Your task to perform on an android device: toggle show notifications on the lock screen Image 0: 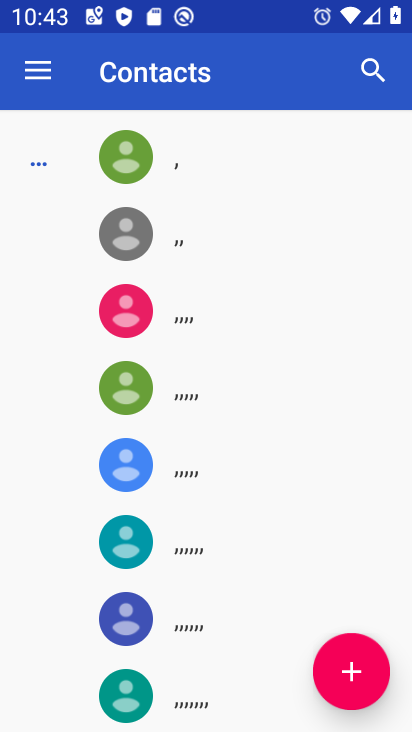
Step 0: press home button
Your task to perform on an android device: toggle show notifications on the lock screen Image 1: 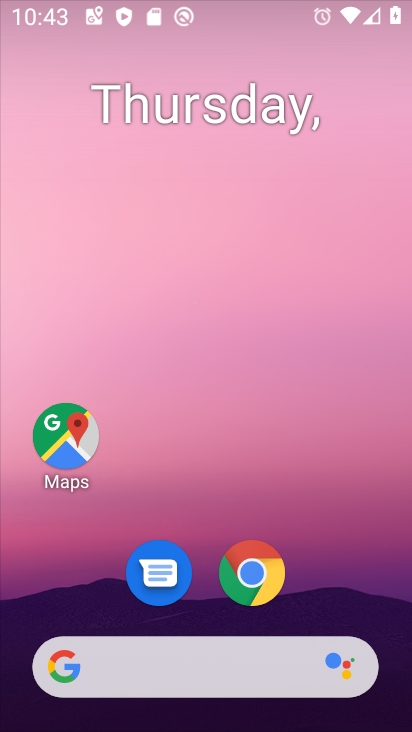
Step 1: drag from (357, 559) to (346, 157)
Your task to perform on an android device: toggle show notifications on the lock screen Image 2: 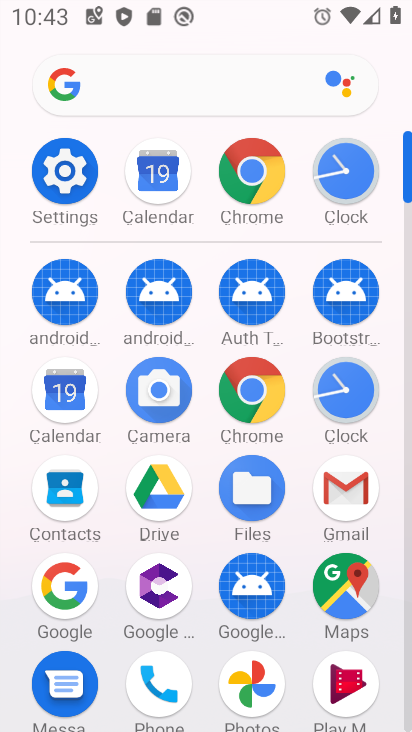
Step 2: click (77, 159)
Your task to perform on an android device: toggle show notifications on the lock screen Image 3: 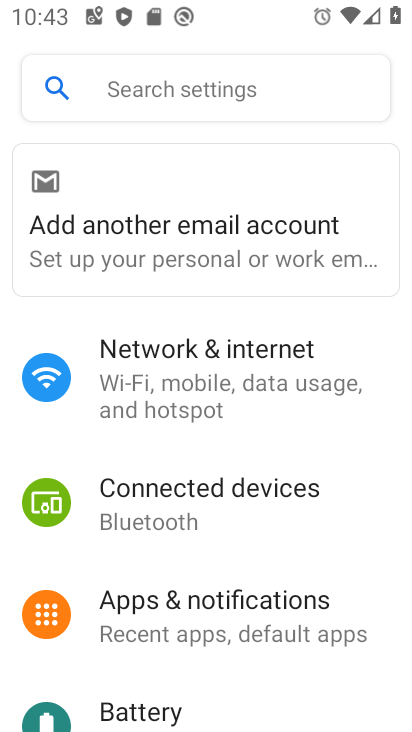
Step 3: click (287, 629)
Your task to perform on an android device: toggle show notifications on the lock screen Image 4: 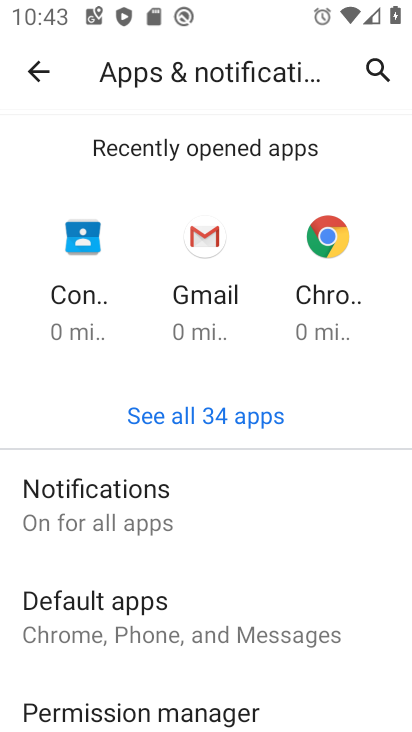
Step 4: drag from (287, 630) to (294, 342)
Your task to perform on an android device: toggle show notifications on the lock screen Image 5: 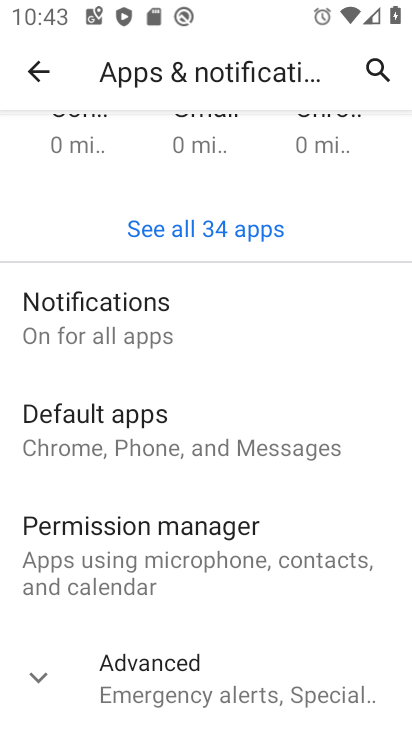
Step 5: click (132, 312)
Your task to perform on an android device: toggle show notifications on the lock screen Image 6: 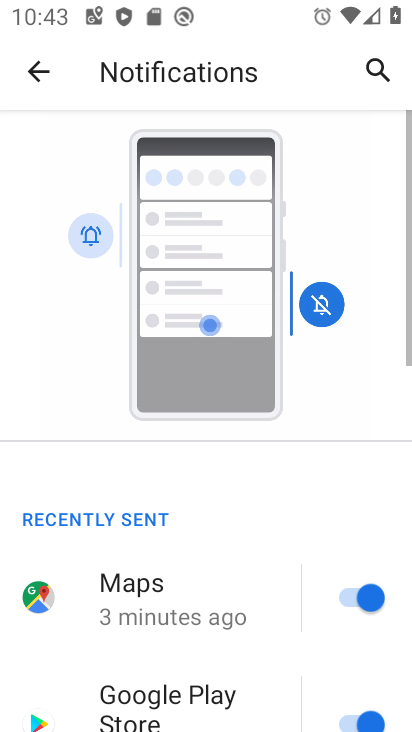
Step 6: drag from (200, 586) to (224, 160)
Your task to perform on an android device: toggle show notifications on the lock screen Image 7: 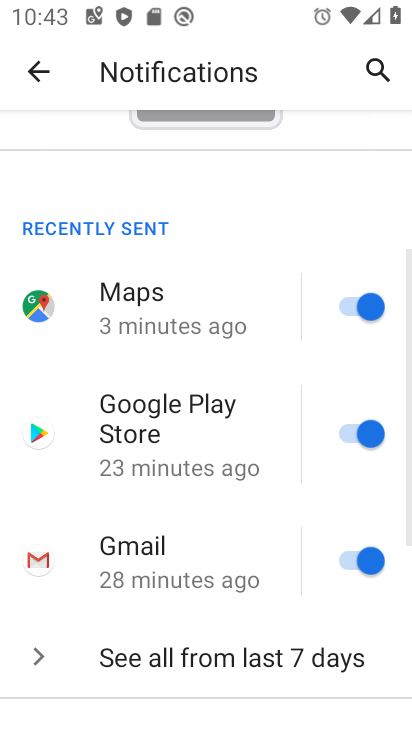
Step 7: drag from (180, 642) to (277, 213)
Your task to perform on an android device: toggle show notifications on the lock screen Image 8: 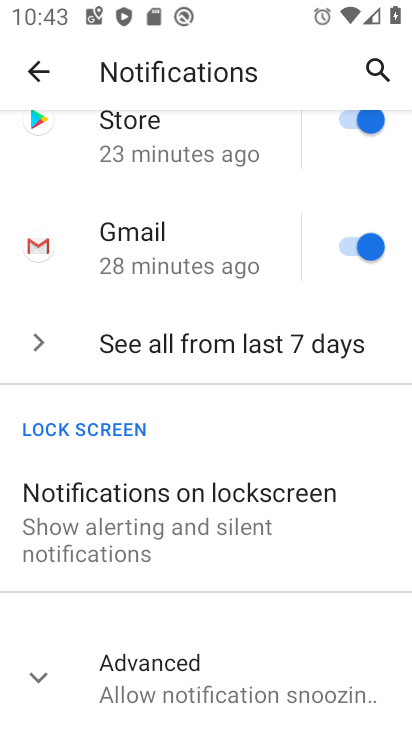
Step 8: click (190, 670)
Your task to perform on an android device: toggle show notifications on the lock screen Image 9: 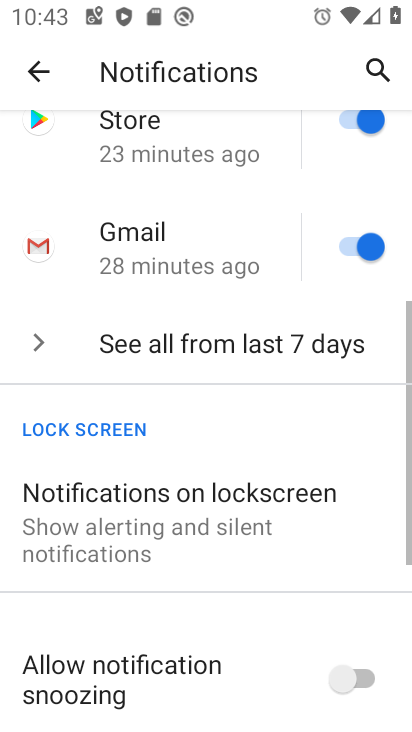
Step 9: drag from (209, 658) to (291, 222)
Your task to perform on an android device: toggle show notifications on the lock screen Image 10: 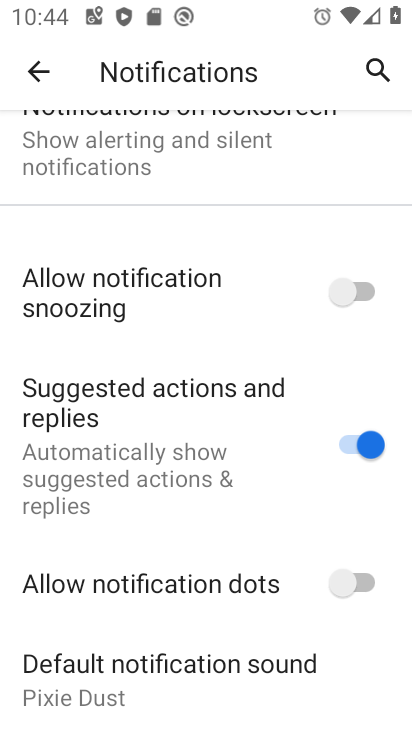
Step 10: drag from (225, 609) to (277, 326)
Your task to perform on an android device: toggle show notifications on the lock screen Image 11: 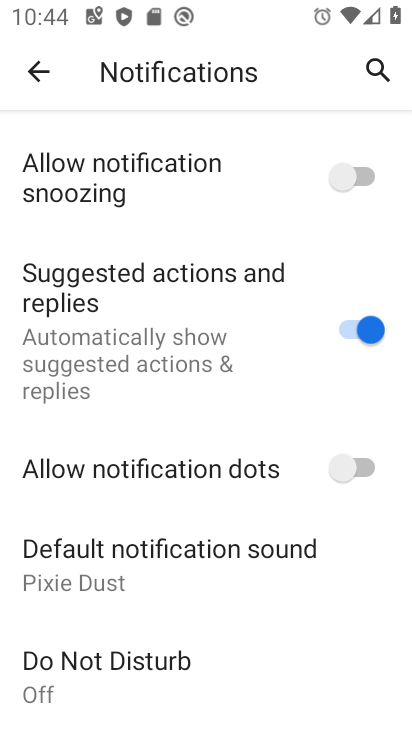
Step 11: drag from (274, 250) to (198, 700)
Your task to perform on an android device: toggle show notifications on the lock screen Image 12: 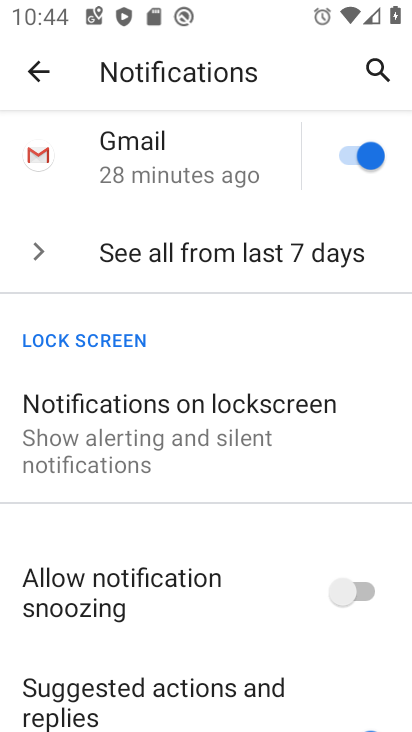
Step 12: click (187, 430)
Your task to perform on an android device: toggle show notifications on the lock screen Image 13: 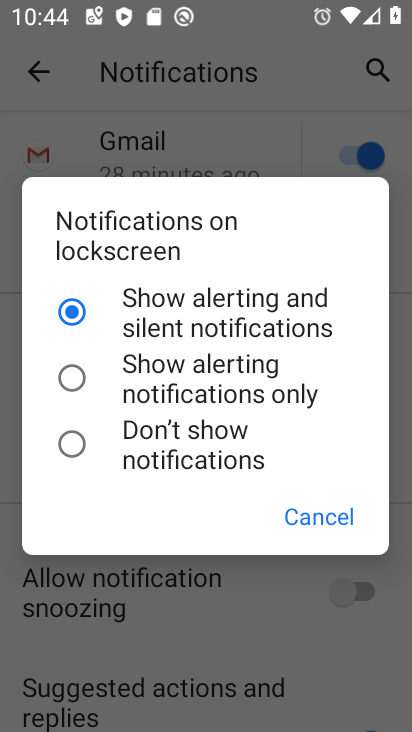
Step 13: click (203, 393)
Your task to perform on an android device: toggle show notifications on the lock screen Image 14: 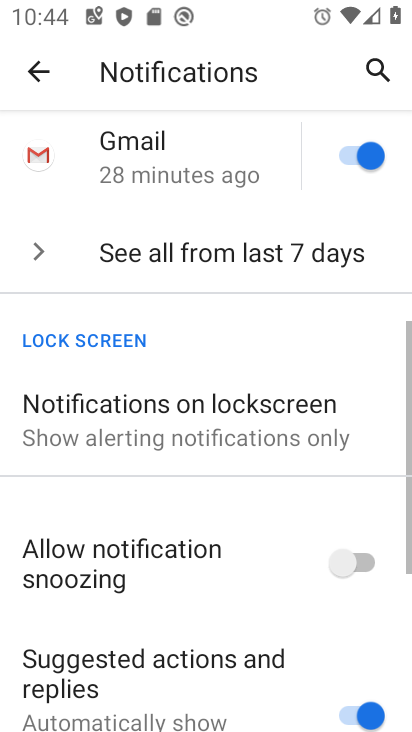
Step 14: task complete